Your task to perform on an android device: Search for 24"x36" picture frame on Home Depot. Image 0: 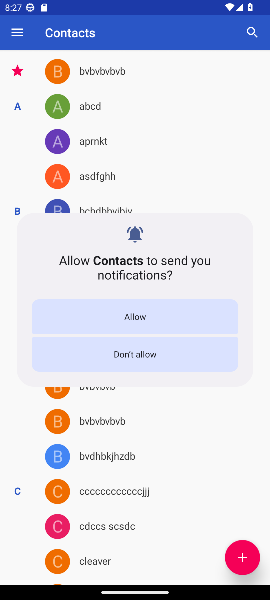
Step 0: press home button
Your task to perform on an android device: Search for 24"x36" picture frame on Home Depot. Image 1: 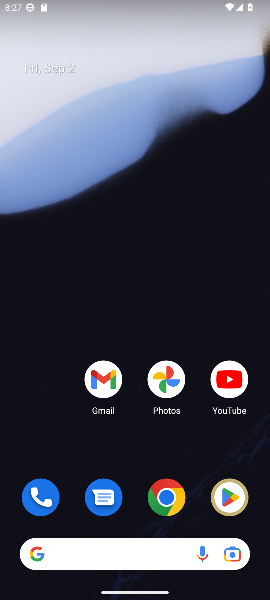
Step 1: click (109, 230)
Your task to perform on an android device: Search for 24"x36" picture frame on Home Depot. Image 2: 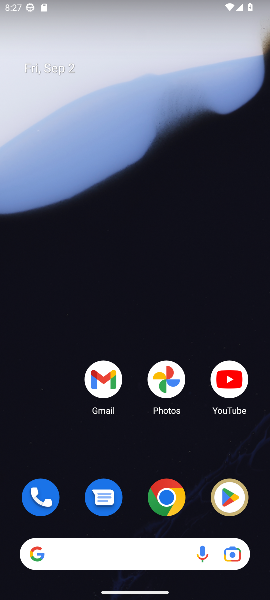
Step 2: drag from (135, 505) to (135, 254)
Your task to perform on an android device: Search for 24"x36" picture frame on Home Depot. Image 3: 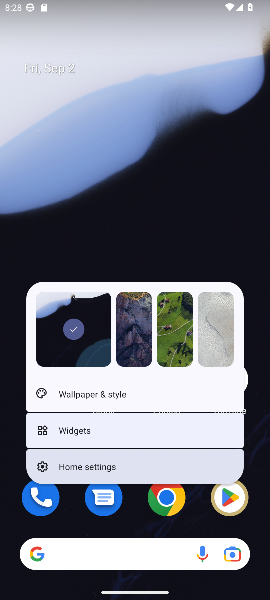
Step 3: click (126, 519)
Your task to perform on an android device: Search for 24"x36" picture frame on Home Depot. Image 4: 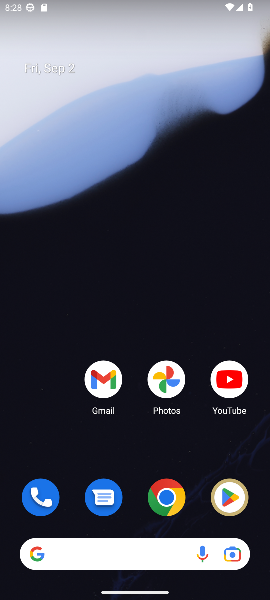
Step 4: drag from (124, 490) to (121, 77)
Your task to perform on an android device: Search for 24"x36" picture frame on Home Depot. Image 5: 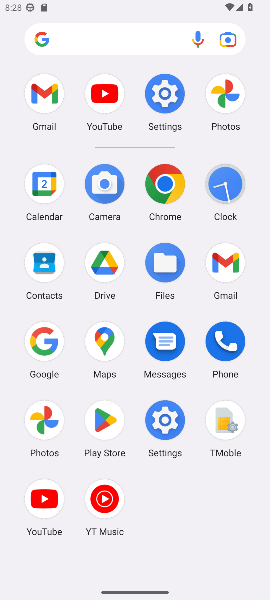
Step 5: click (41, 340)
Your task to perform on an android device: Search for 24"x36" picture frame on Home Depot. Image 6: 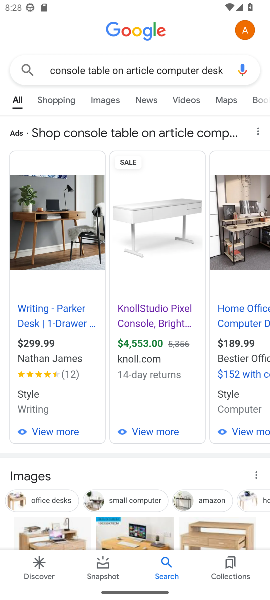
Step 6: click (223, 67)
Your task to perform on an android device: Search for 24"x36" picture frame on Home Depot. Image 7: 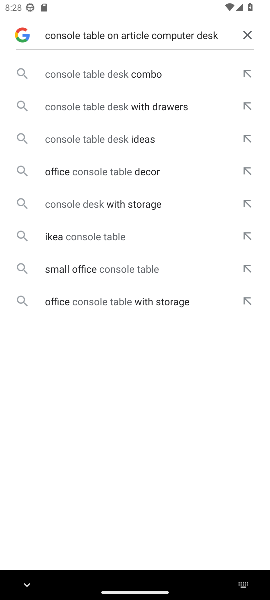
Step 7: click (250, 29)
Your task to perform on an android device: Search for 24"x36" picture frame on Home Depot. Image 8: 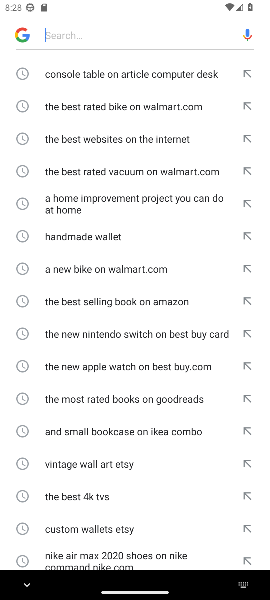
Step 8: type " 24"x36" picture frame on Home Depot"
Your task to perform on an android device: Search for 24"x36" picture frame on Home Depot. Image 9: 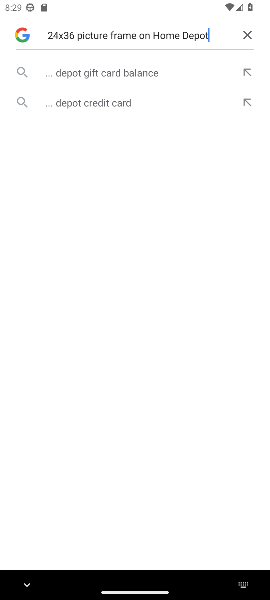
Step 9: click (140, 72)
Your task to perform on an android device: Search for 24"x36" picture frame on Home Depot. Image 10: 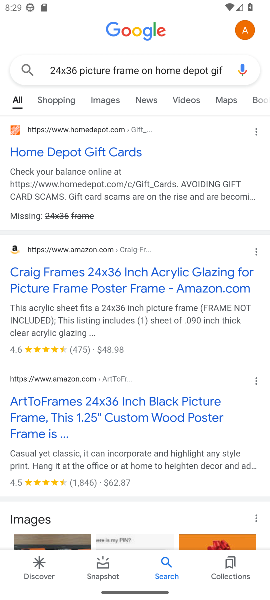
Step 10: click (141, 407)
Your task to perform on an android device: Search for 24"x36" picture frame on Home Depot. Image 11: 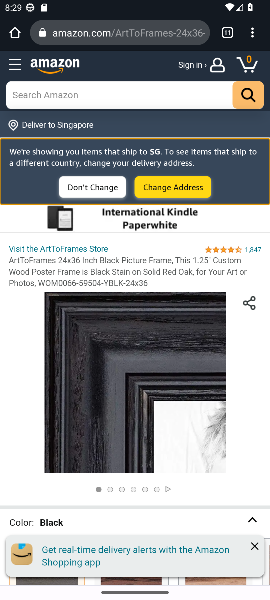
Step 11: task complete